Your task to perform on an android device: turn notification dots on Image 0: 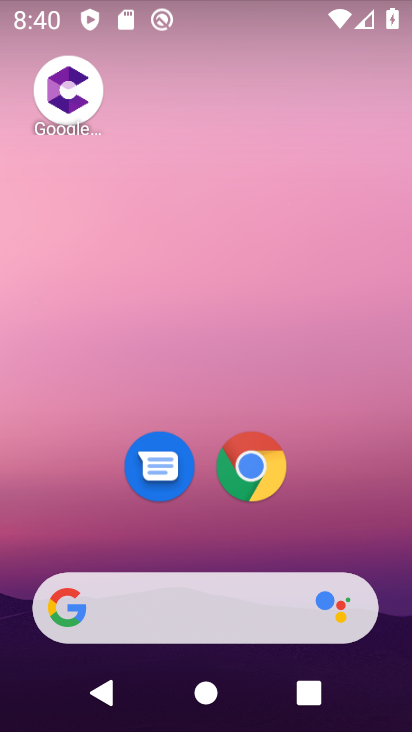
Step 0: drag from (230, 475) to (285, 93)
Your task to perform on an android device: turn notification dots on Image 1: 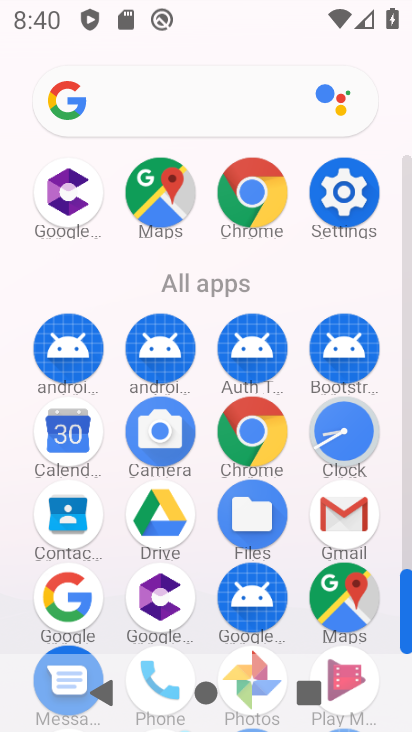
Step 1: click (347, 210)
Your task to perform on an android device: turn notification dots on Image 2: 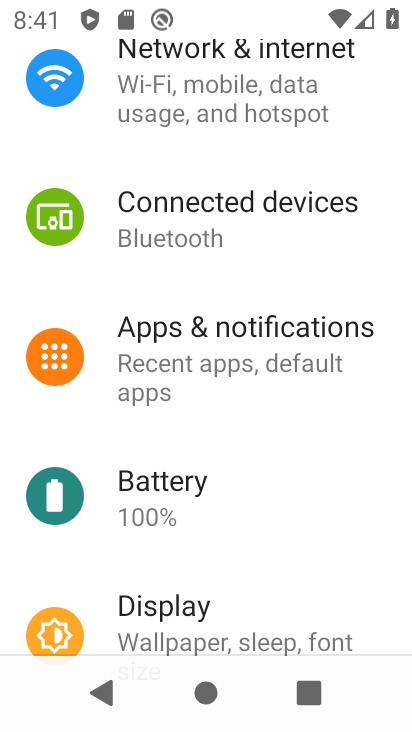
Step 2: click (324, 366)
Your task to perform on an android device: turn notification dots on Image 3: 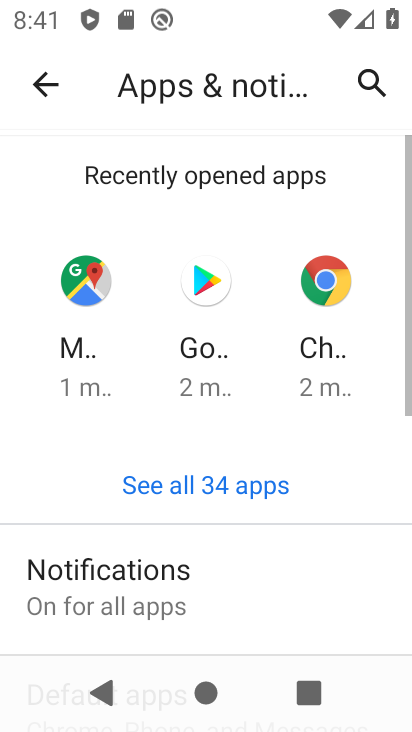
Step 3: drag from (229, 595) to (266, 156)
Your task to perform on an android device: turn notification dots on Image 4: 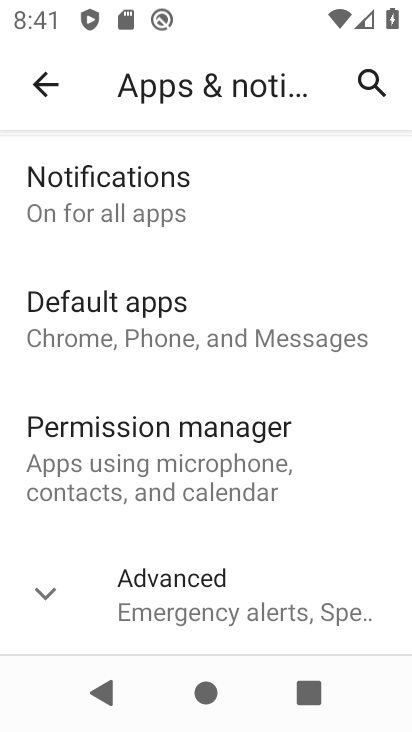
Step 4: click (179, 195)
Your task to perform on an android device: turn notification dots on Image 5: 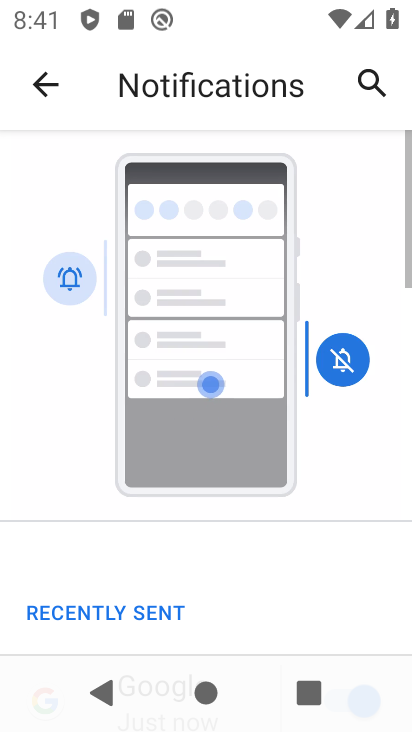
Step 5: drag from (248, 609) to (261, 71)
Your task to perform on an android device: turn notification dots on Image 6: 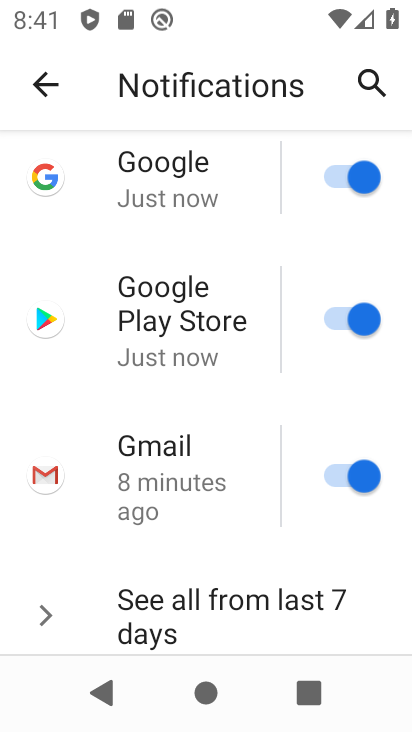
Step 6: drag from (229, 644) to (286, 168)
Your task to perform on an android device: turn notification dots on Image 7: 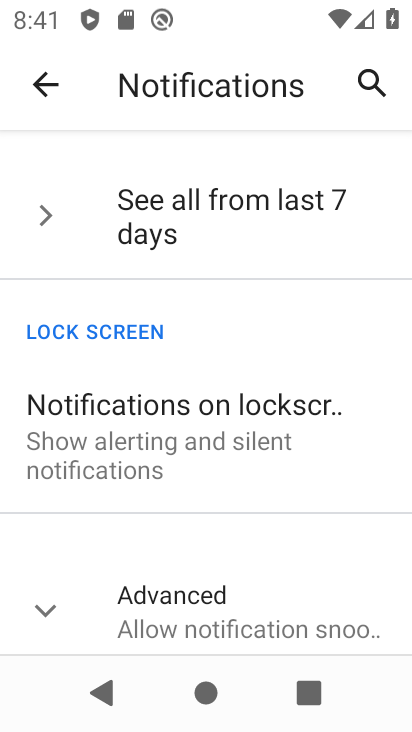
Step 7: click (307, 613)
Your task to perform on an android device: turn notification dots on Image 8: 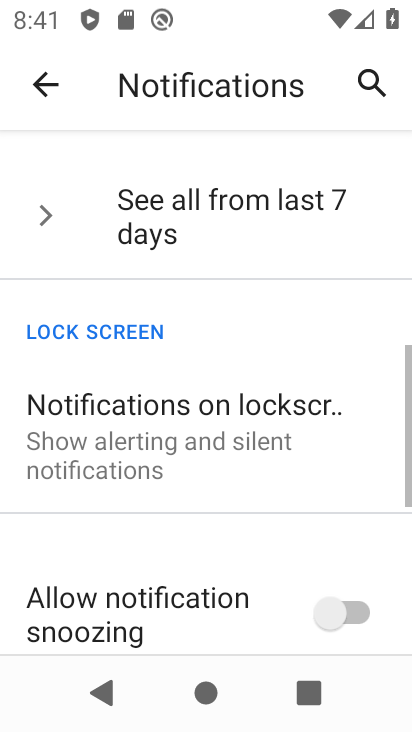
Step 8: task complete